Your task to perform on an android device: What is the news today? Image 0: 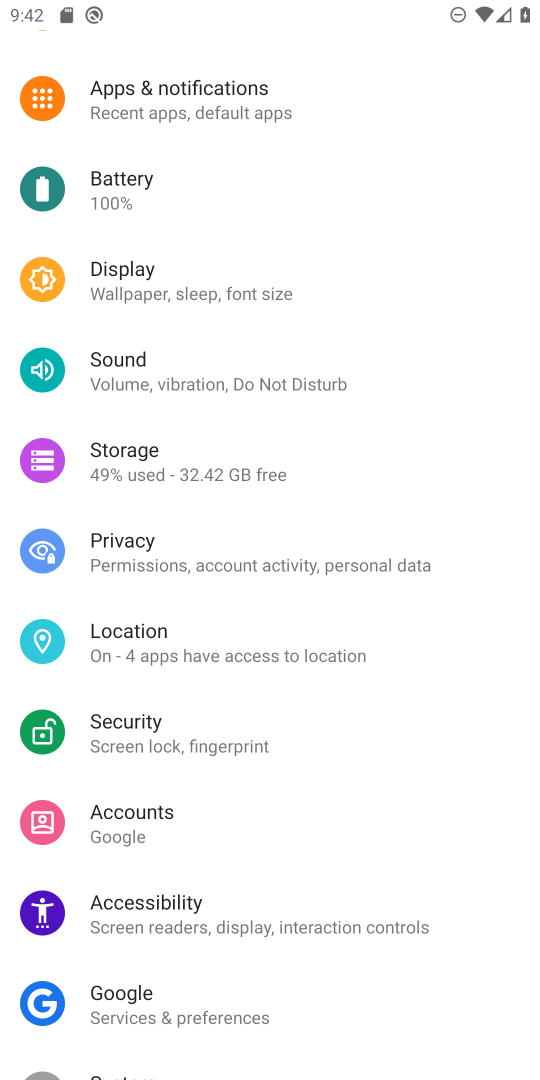
Step 0: press home button
Your task to perform on an android device: What is the news today? Image 1: 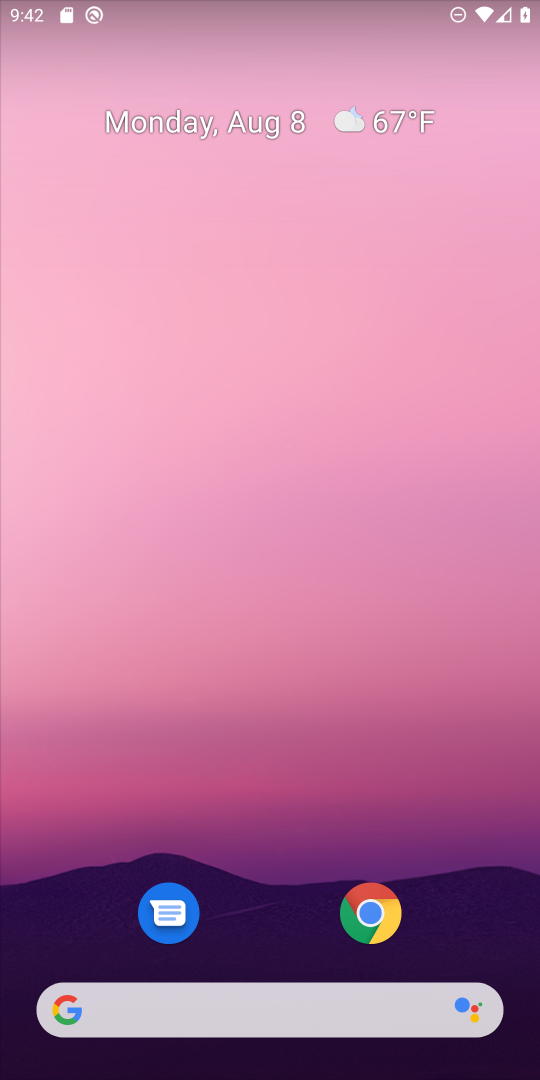
Step 1: drag from (268, 995) to (286, 328)
Your task to perform on an android device: What is the news today? Image 2: 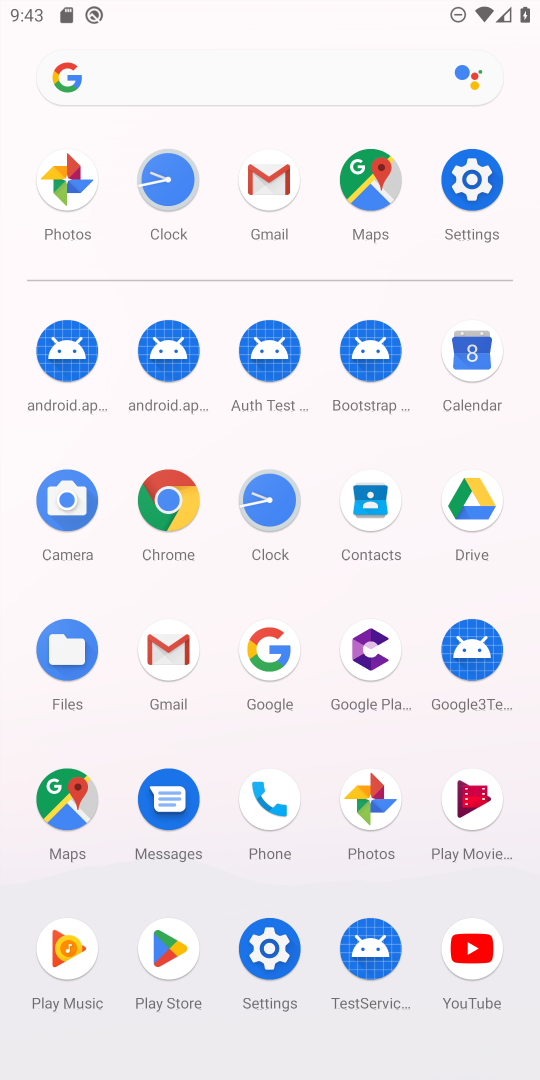
Step 2: click (265, 648)
Your task to perform on an android device: What is the news today? Image 3: 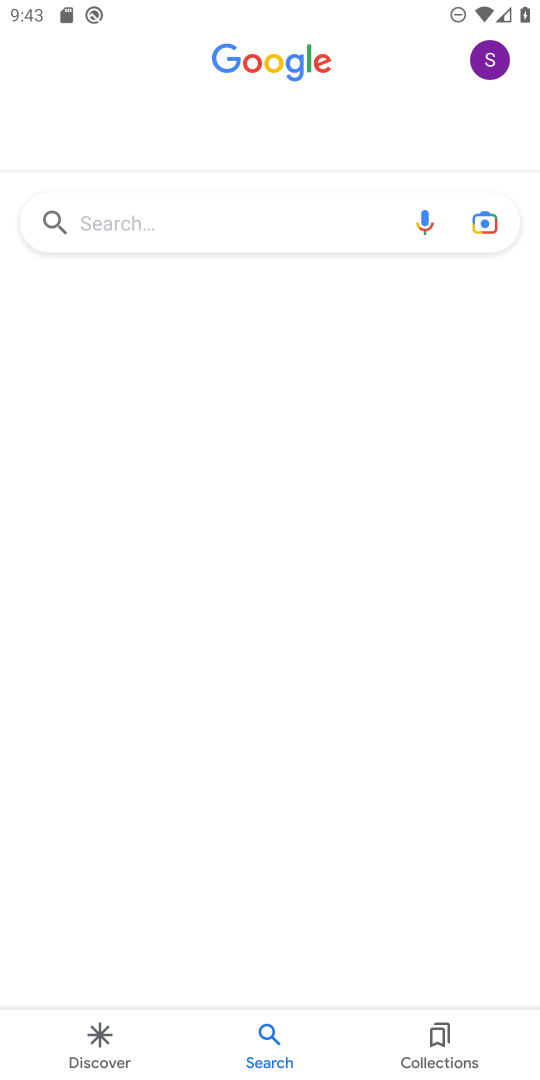
Step 3: click (275, 224)
Your task to perform on an android device: What is the news today? Image 4: 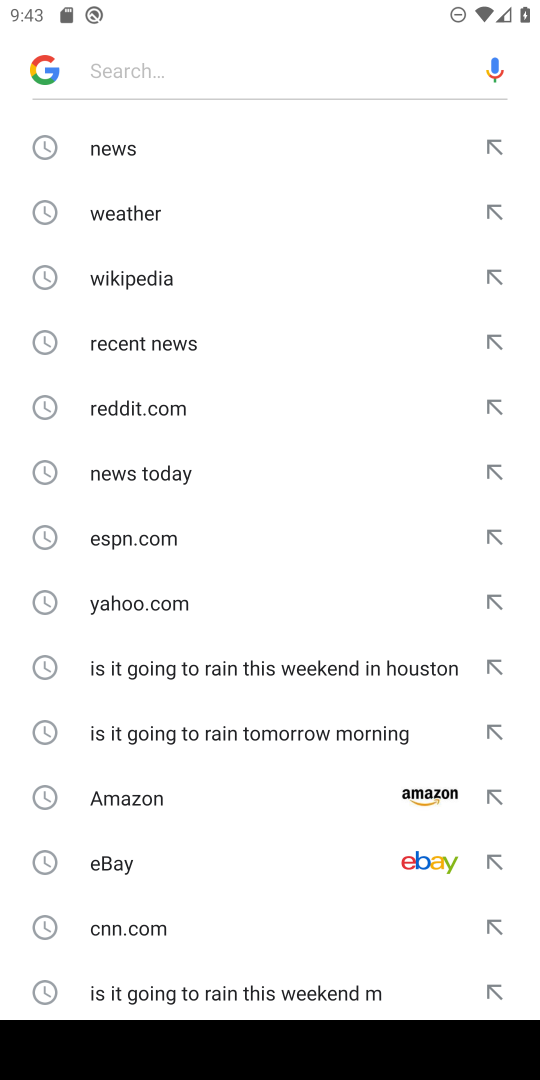
Step 4: type "What's is the news today?"
Your task to perform on an android device: What is the news today? Image 5: 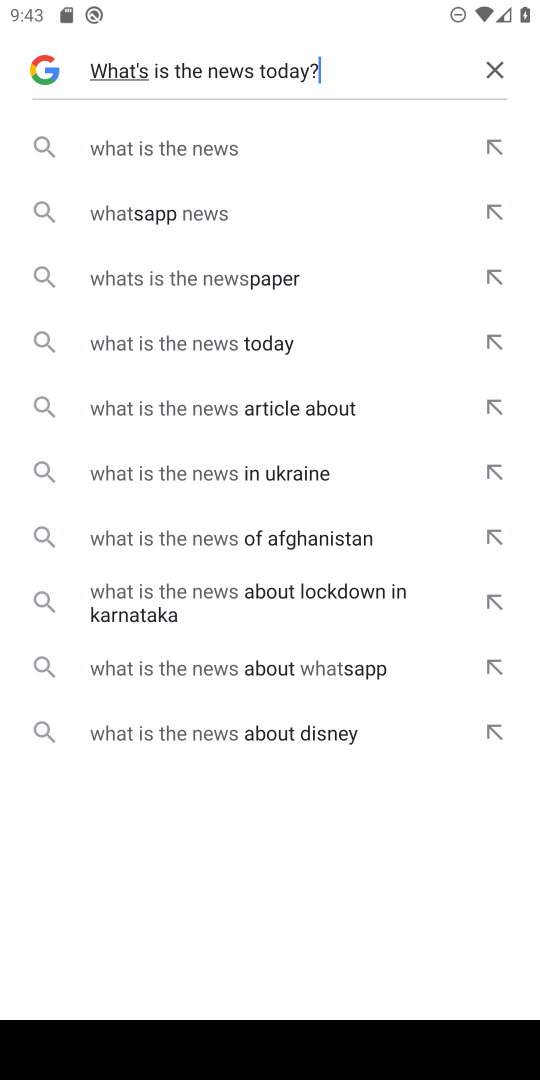
Step 5: type ""
Your task to perform on an android device: What is the news today? Image 6: 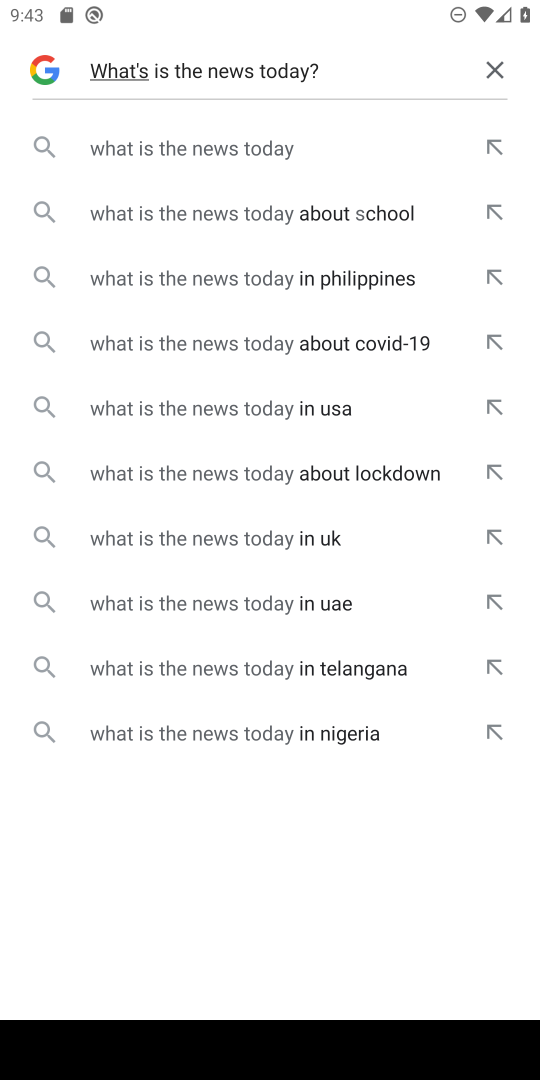
Step 6: click (234, 159)
Your task to perform on an android device: What is the news today? Image 7: 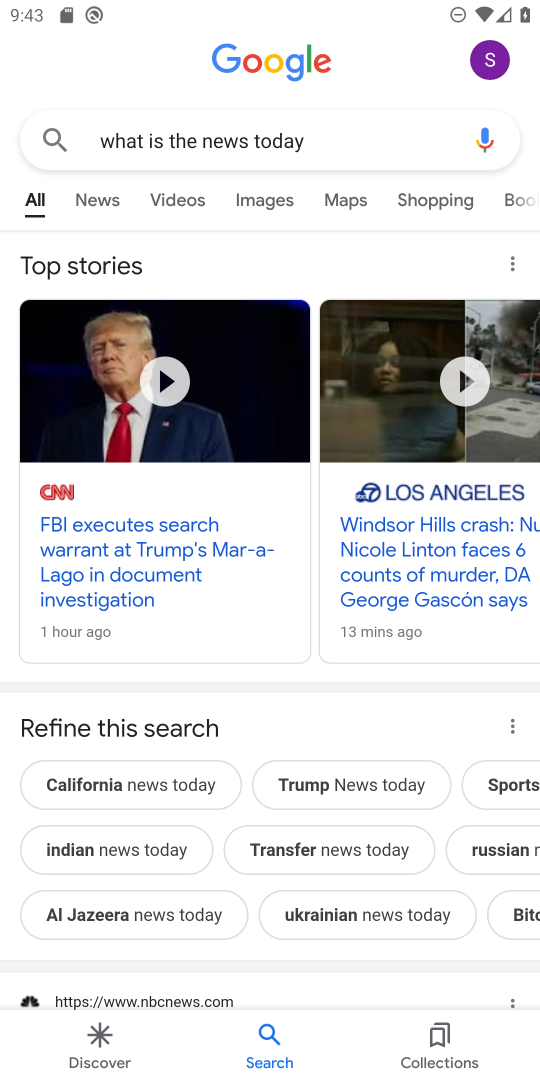
Step 7: drag from (370, 568) to (192, 603)
Your task to perform on an android device: What is the news today? Image 8: 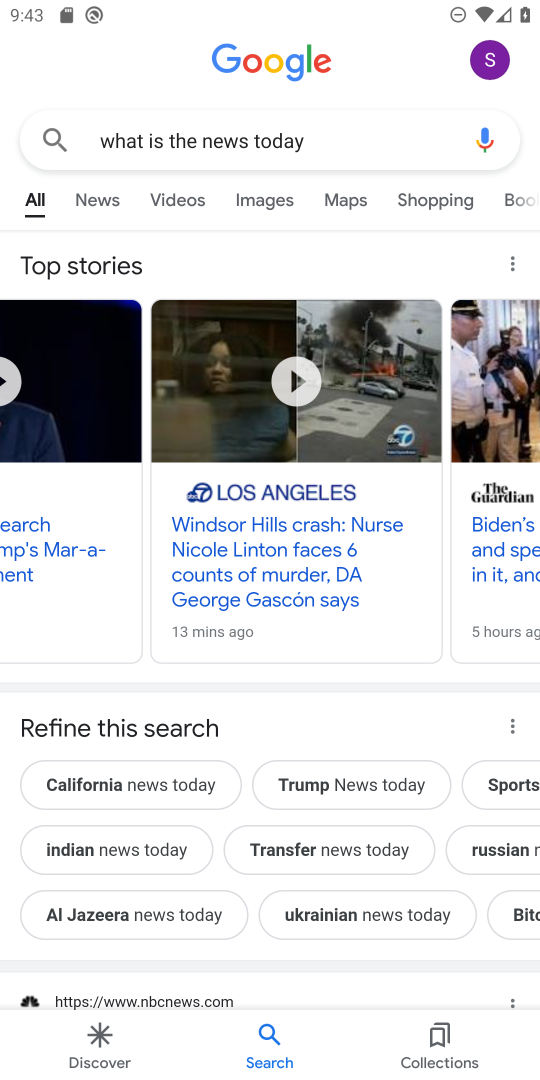
Step 8: drag from (479, 544) to (240, 655)
Your task to perform on an android device: What is the news today? Image 9: 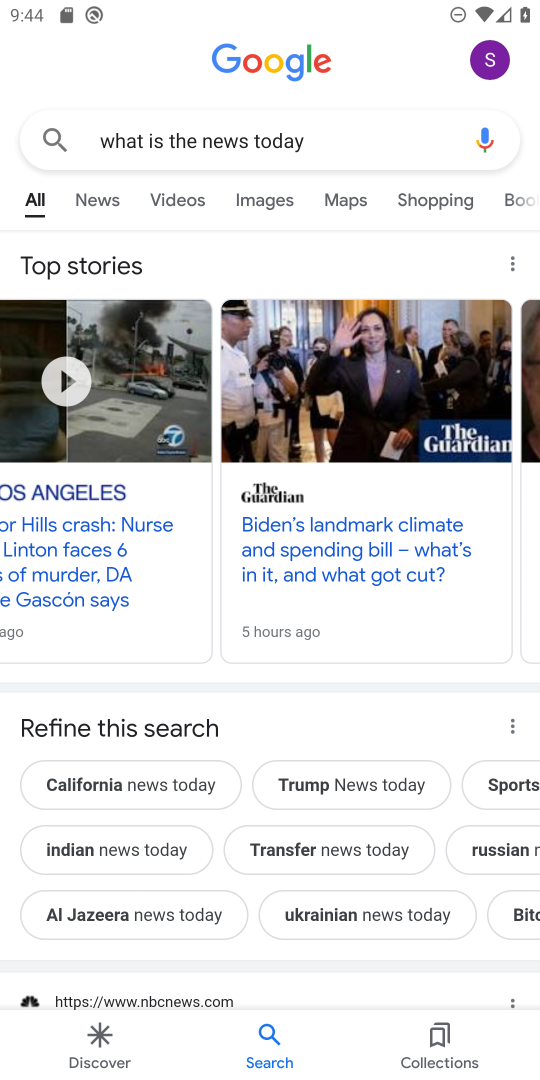
Step 9: click (96, 584)
Your task to perform on an android device: What is the news today? Image 10: 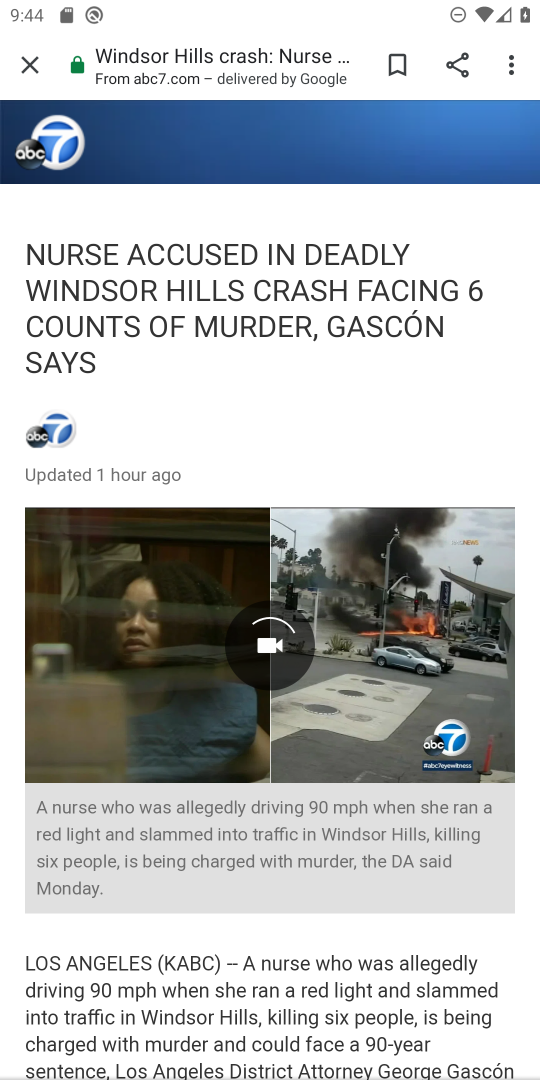
Step 10: task complete